Your task to perform on an android device: Open eBay Image 0: 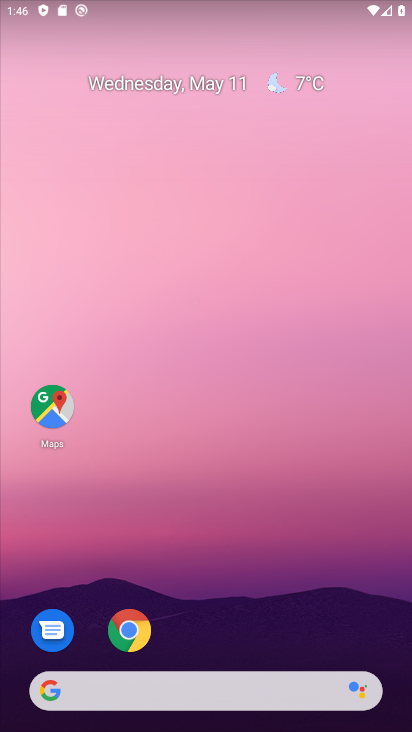
Step 0: drag from (376, 629) to (248, 32)
Your task to perform on an android device: Open eBay Image 1: 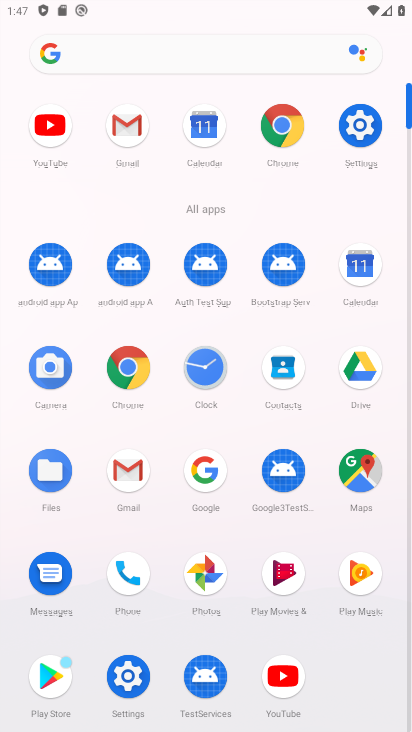
Step 1: click (113, 364)
Your task to perform on an android device: Open eBay Image 2: 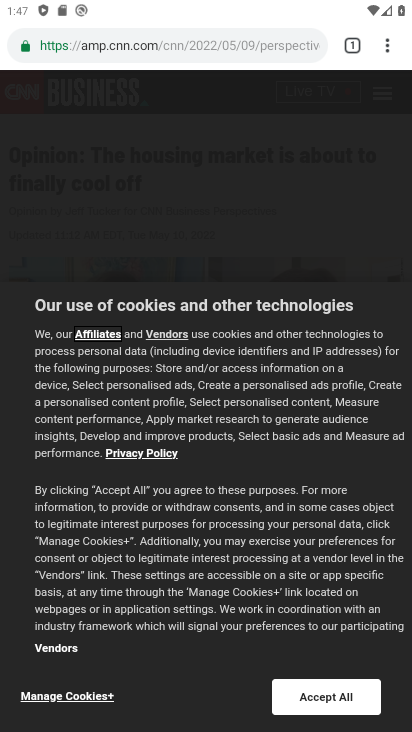
Step 2: press back button
Your task to perform on an android device: Open eBay Image 3: 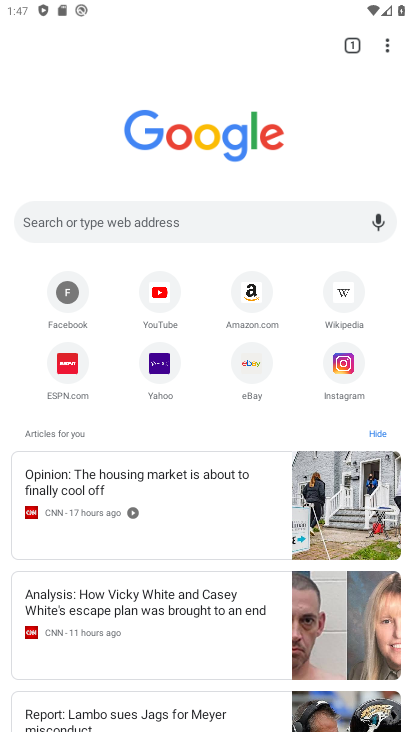
Step 3: click (253, 368)
Your task to perform on an android device: Open eBay Image 4: 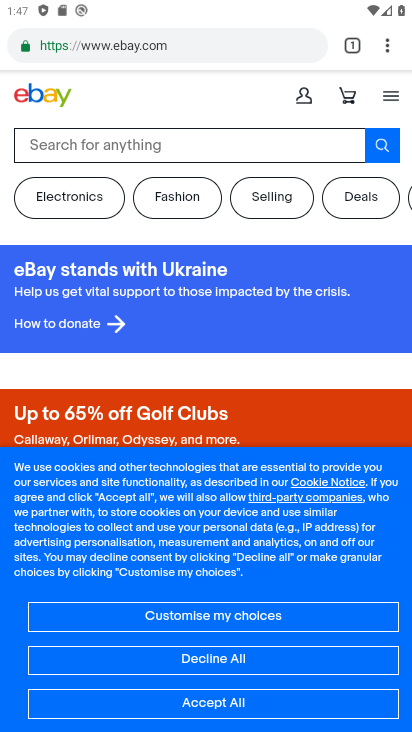
Step 4: task complete